Your task to perform on an android device: turn on location history Image 0: 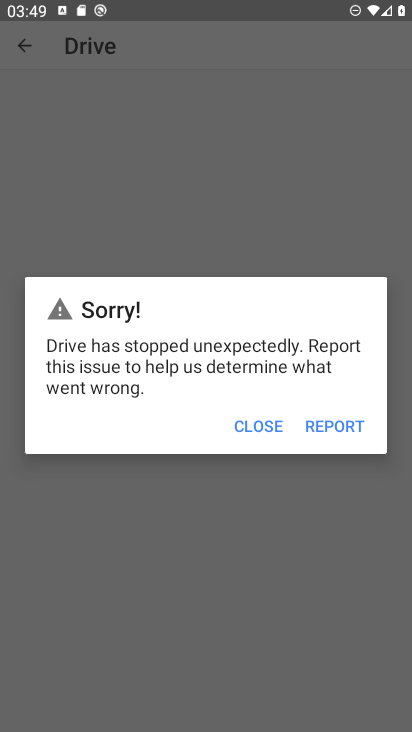
Step 0: press home button
Your task to perform on an android device: turn on location history Image 1: 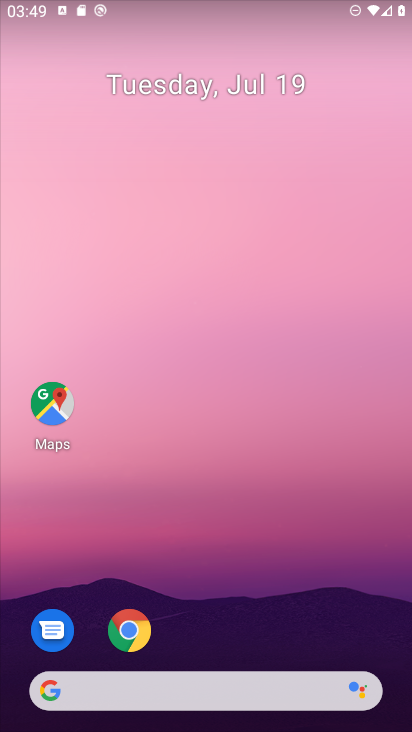
Step 1: click (53, 405)
Your task to perform on an android device: turn on location history Image 2: 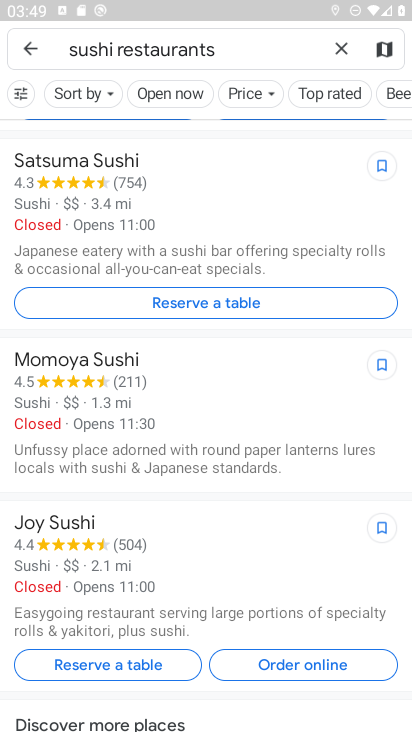
Step 2: click (340, 49)
Your task to perform on an android device: turn on location history Image 3: 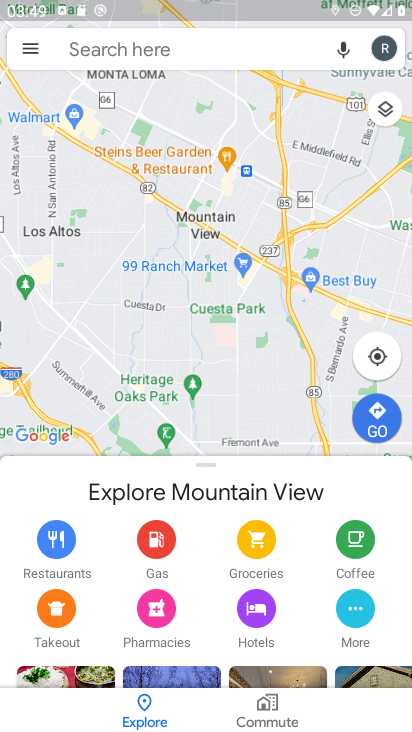
Step 3: click (33, 51)
Your task to perform on an android device: turn on location history Image 4: 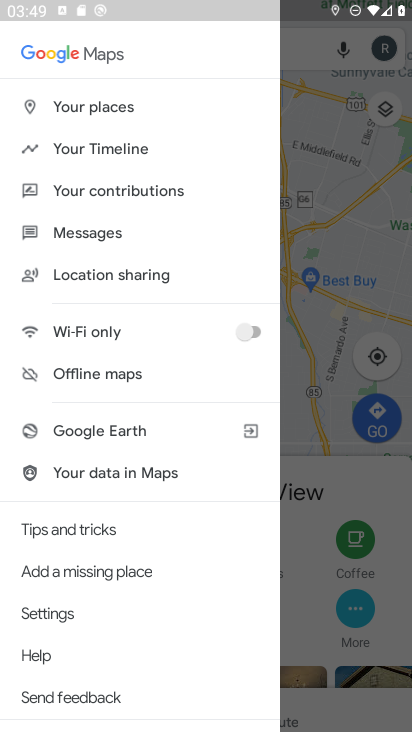
Step 4: click (54, 602)
Your task to perform on an android device: turn on location history Image 5: 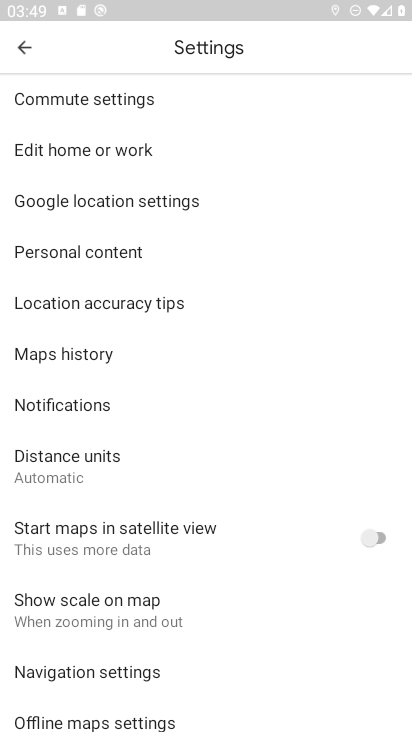
Step 5: click (84, 253)
Your task to perform on an android device: turn on location history Image 6: 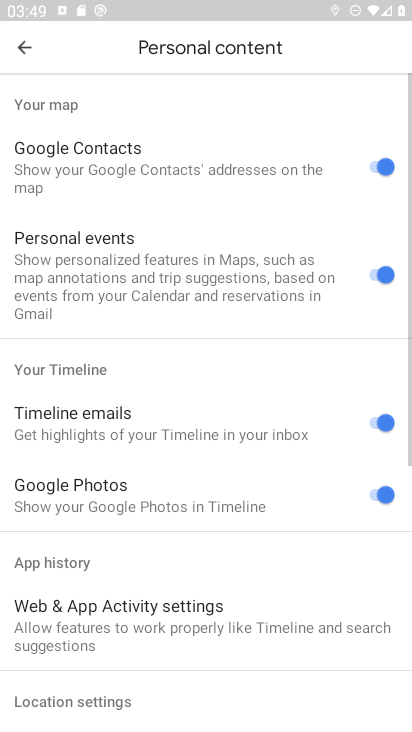
Step 6: drag from (232, 550) to (242, 111)
Your task to perform on an android device: turn on location history Image 7: 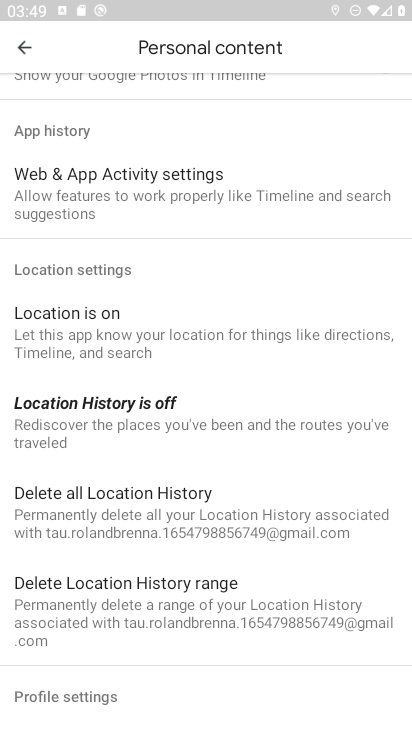
Step 7: click (101, 407)
Your task to perform on an android device: turn on location history Image 8: 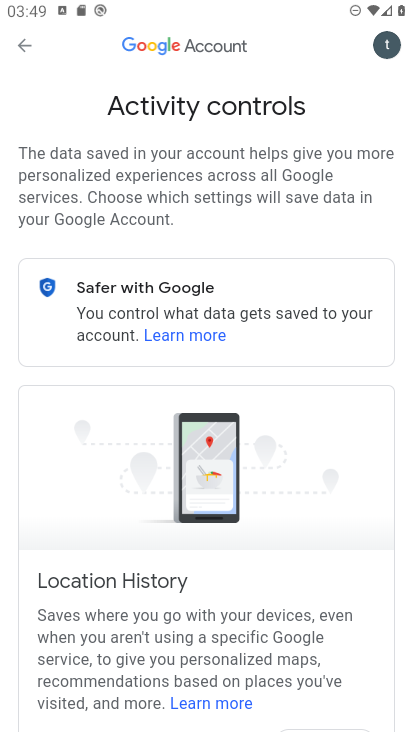
Step 8: task complete